Your task to perform on an android device: Is it going to rain today? Image 0: 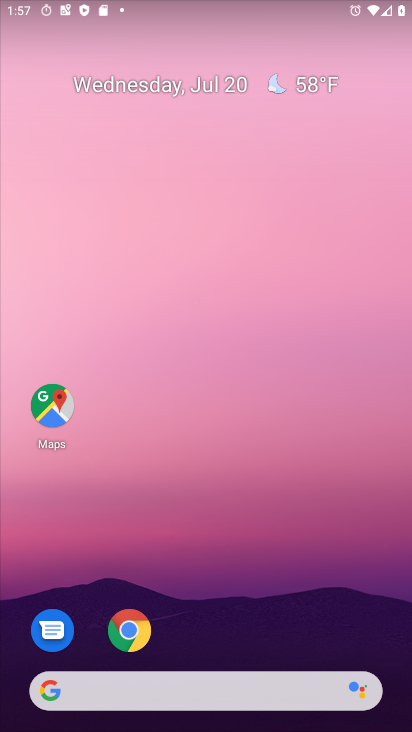
Step 0: click (172, 695)
Your task to perform on an android device: Is it going to rain today? Image 1: 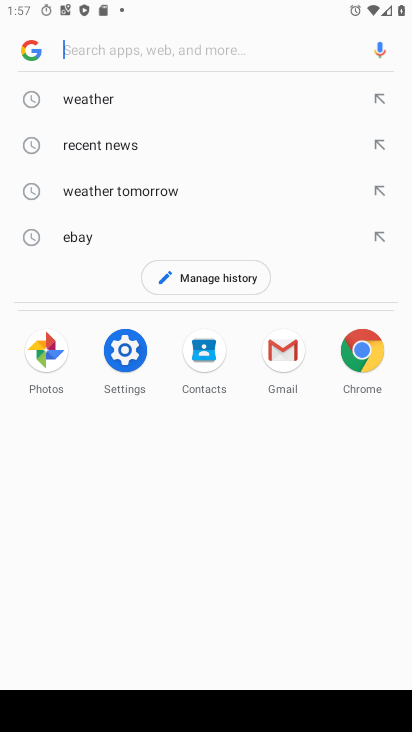
Step 1: click (97, 98)
Your task to perform on an android device: Is it going to rain today? Image 2: 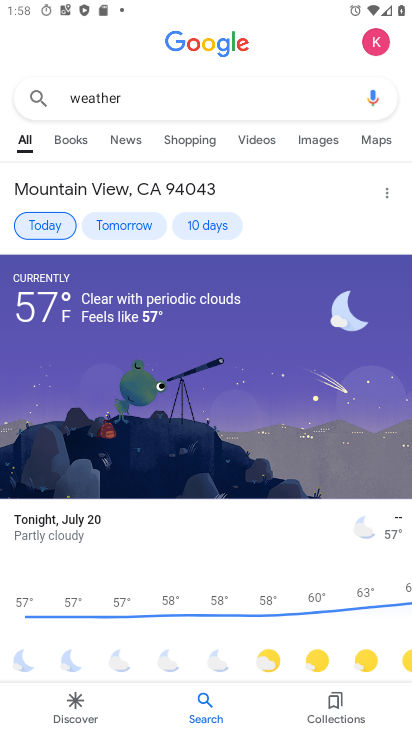
Step 2: task complete